Your task to perform on an android device: see creations saved in the google photos Image 0: 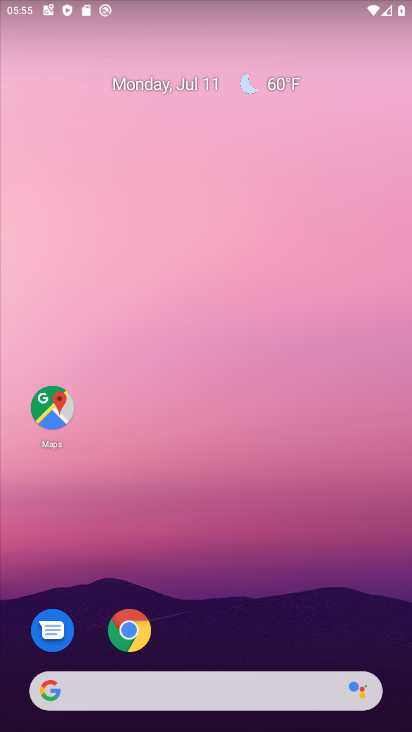
Step 0: click (240, 190)
Your task to perform on an android device: see creations saved in the google photos Image 1: 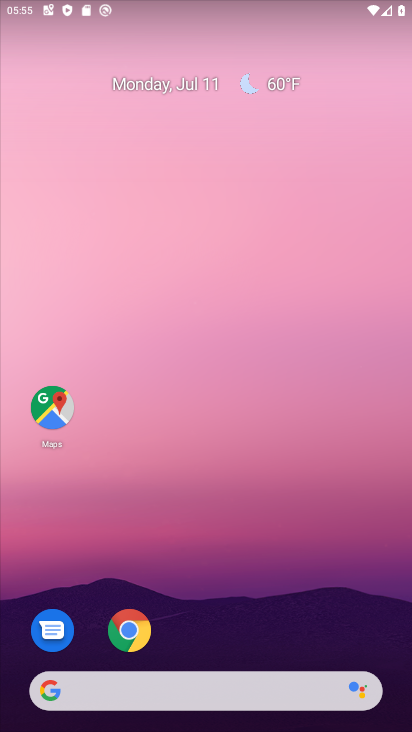
Step 1: drag from (237, 470) to (253, 266)
Your task to perform on an android device: see creations saved in the google photos Image 2: 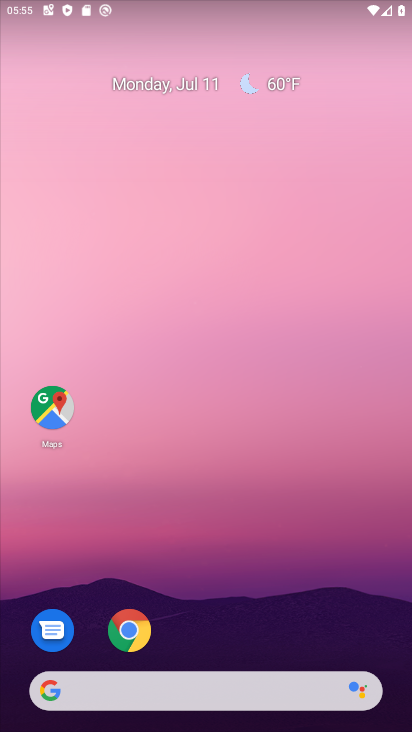
Step 2: drag from (242, 640) to (213, 24)
Your task to perform on an android device: see creations saved in the google photos Image 3: 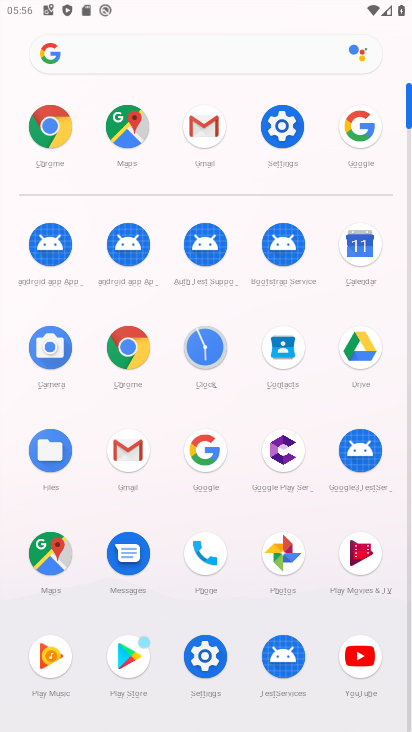
Step 3: click (279, 559)
Your task to perform on an android device: see creations saved in the google photos Image 4: 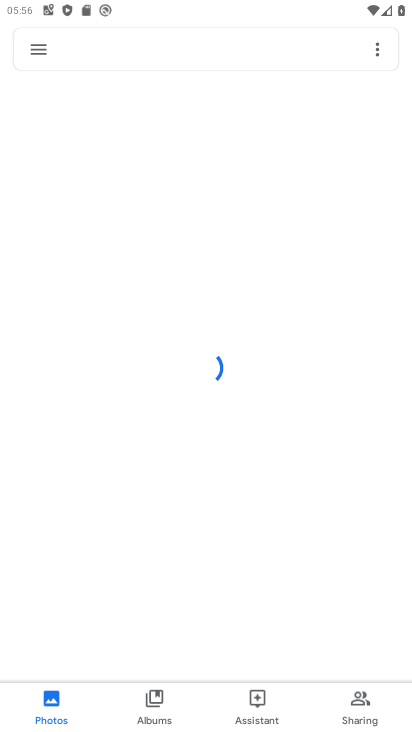
Step 4: click (279, 559)
Your task to perform on an android device: see creations saved in the google photos Image 5: 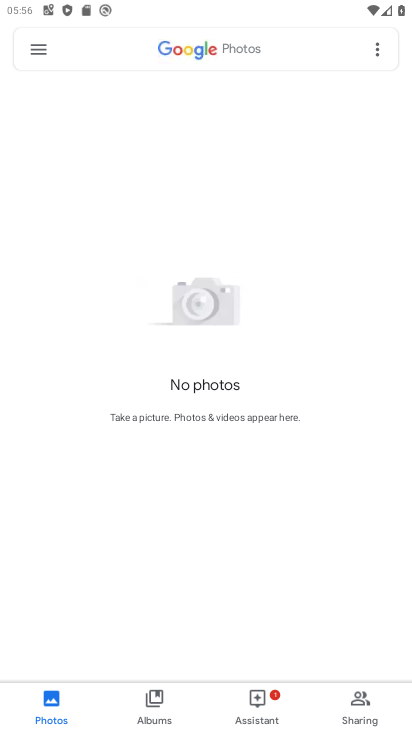
Step 5: click (207, 43)
Your task to perform on an android device: see creations saved in the google photos Image 6: 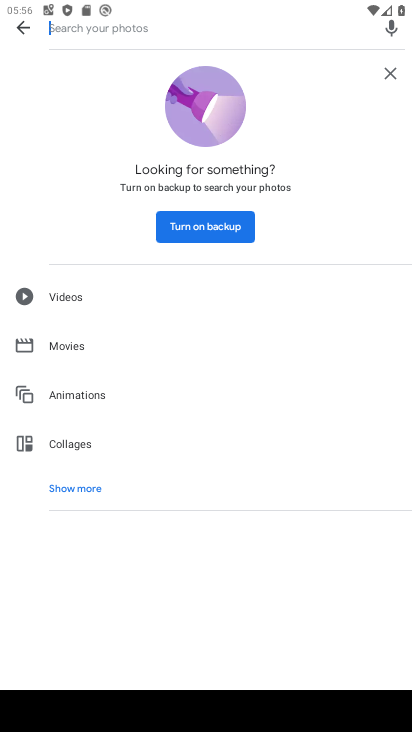
Step 6: click (93, 490)
Your task to perform on an android device: see creations saved in the google photos Image 7: 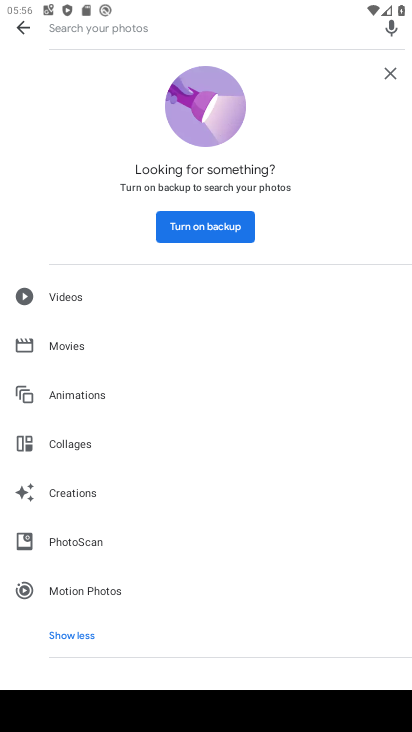
Step 7: click (90, 496)
Your task to perform on an android device: see creations saved in the google photos Image 8: 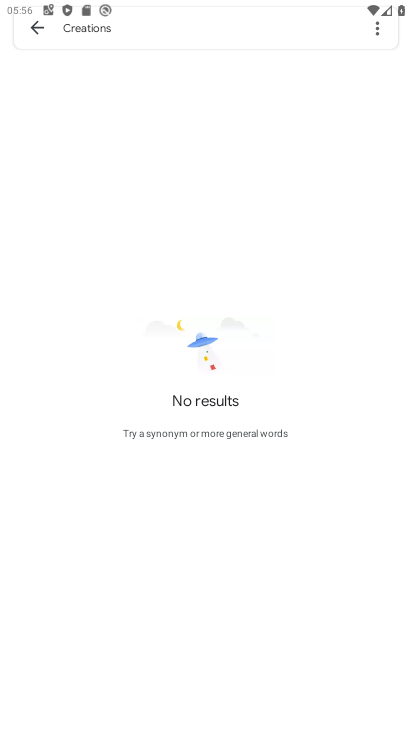
Step 8: task complete